Your task to perform on an android device: check out phone information Image 0: 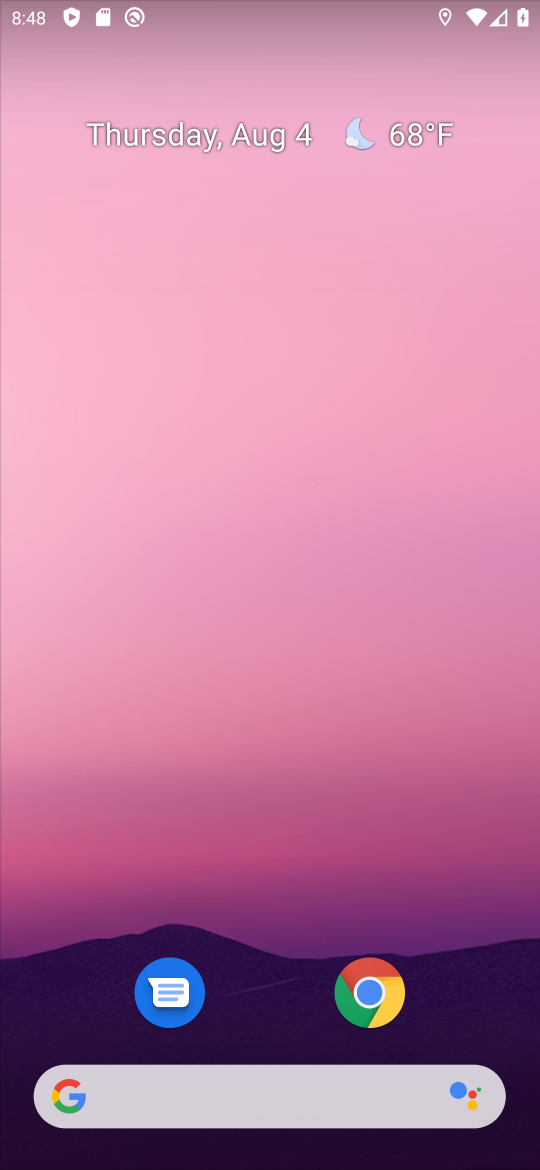
Step 0: drag from (210, 515) to (318, 187)
Your task to perform on an android device: check out phone information Image 1: 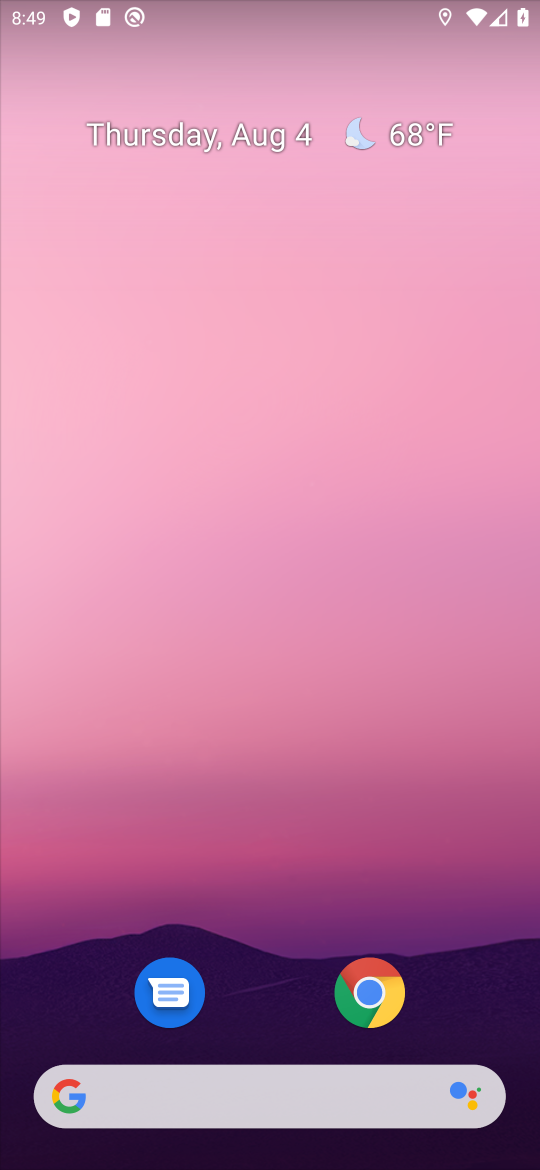
Step 1: drag from (235, 458) to (319, 111)
Your task to perform on an android device: check out phone information Image 2: 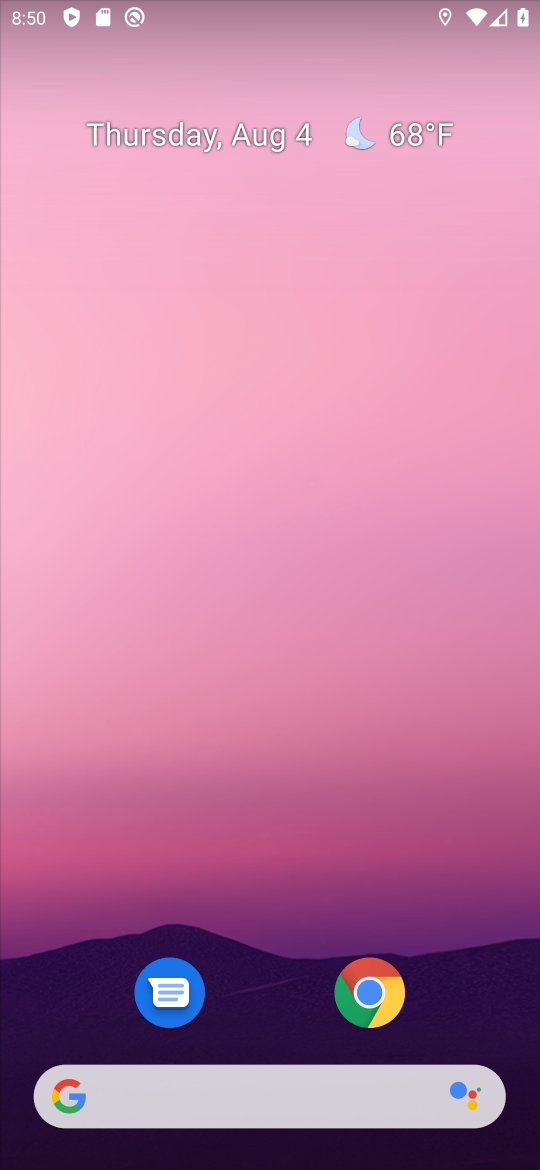
Step 2: drag from (115, 821) to (338, 193)
Your task to perform on an android device: check out phone information Image 3: 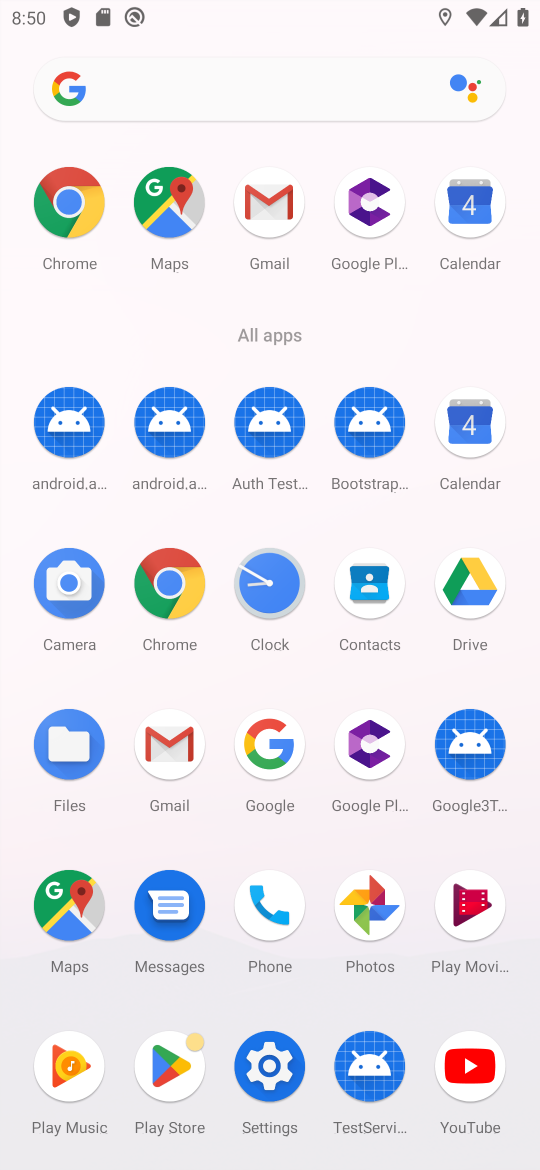
Step 3: click (278, 916)
Your task to perform on an android device: check out phone information Image 4: 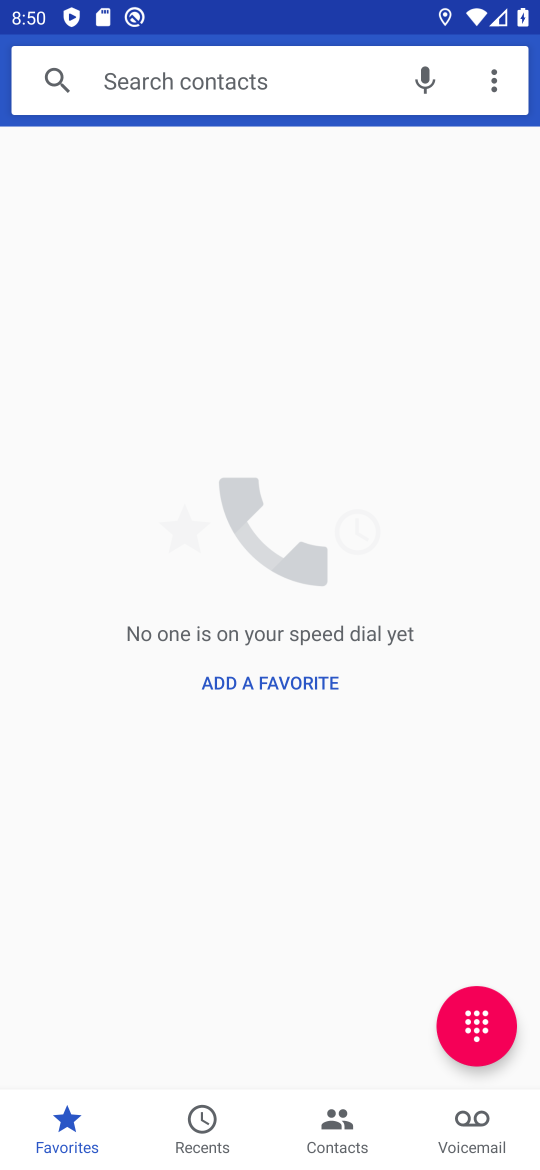
Step 4: task complete